Your task to perform on an android device: open a bookmark in the chrome app Image 0: 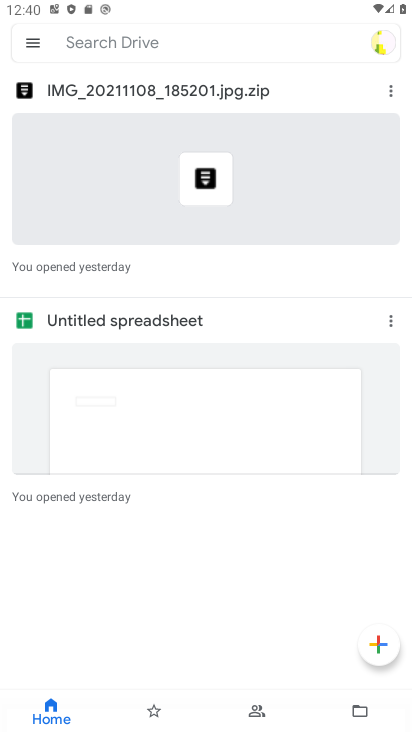
Step 0: press home button
Your task to perform on an android device: open a bookmark in the chrome app Image 1: 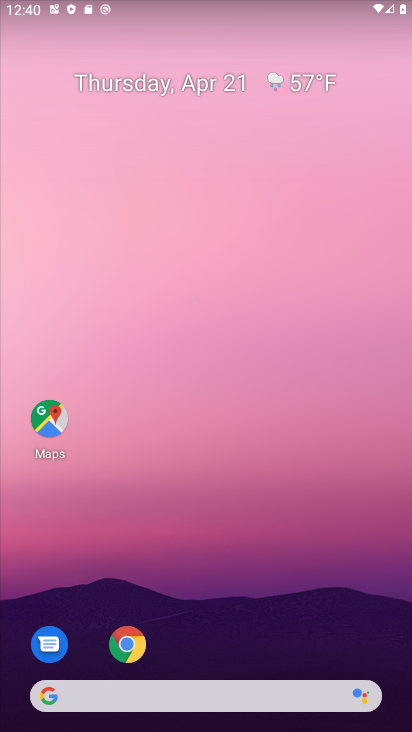
Step 1: drag from (214, 663) to (183, 64)
Your task to perform on an android device: open a bookmark in the chrome app Image 2: 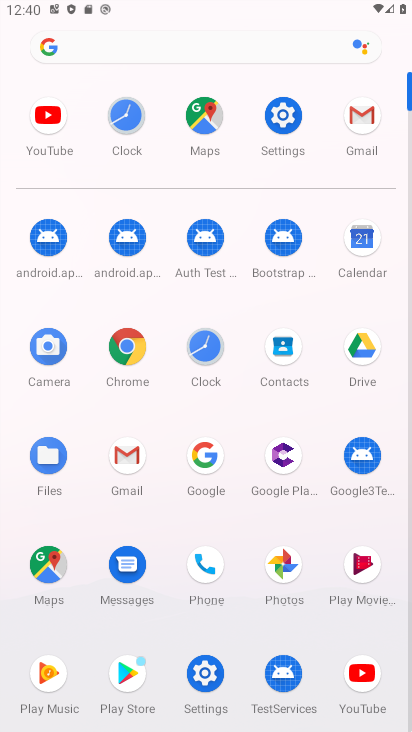
Step 2: click (130, 349)
Your task to perform on an android device: open a bookmark in the chrome app Image 3: 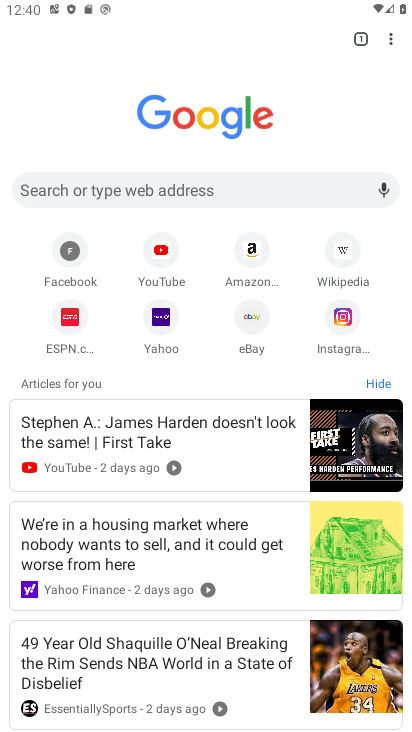
Step 3: task complete